Your task to perform on an android device: Clear the cart on costco. Add corsair k70 to the cart on costco Image 0: 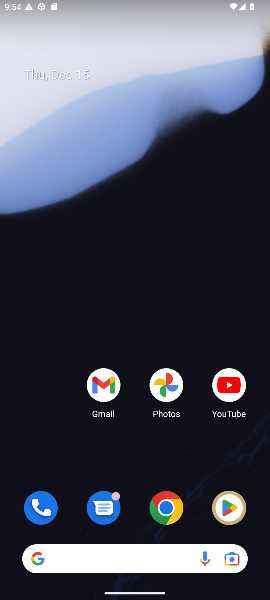
Step 0: drag from (94, 553) to (111, 252)
Your task to perform on an android device: Clear the cart on costco. Add corsair k70 to the cart on costco Image 1: 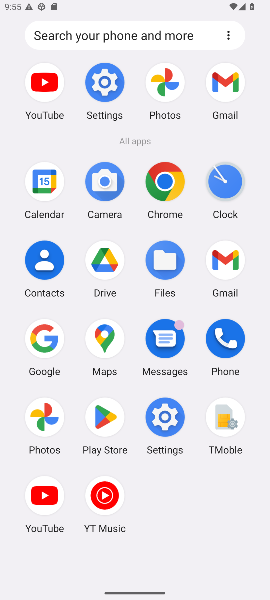
Step 1: click (40, 341)
Your task to perform on an android device: Clear the cart on costco. Add corsair k70 to the cart on costco Image 2: 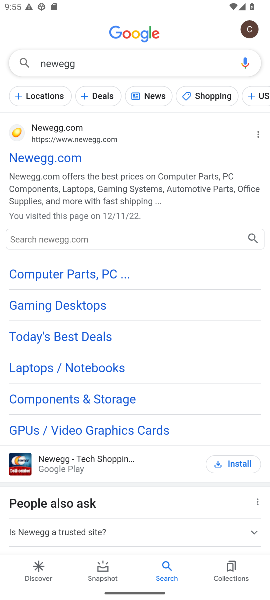
Step 2: click (60, 62)
Your task to perform on an android device: Clear the cart on costco. Add corsair k70 to the cart on costco Image 3: 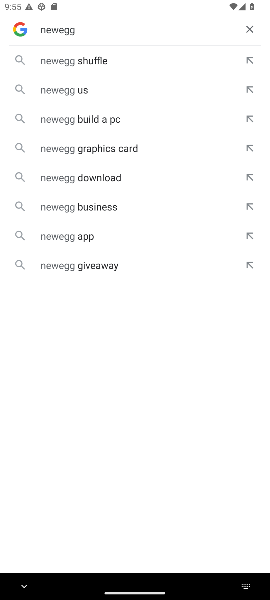
Step 3: click (250, 31)
Your task to perform on an android device: Clear the cart on costco. Add corsair k70 to the cart on costco Image 4: 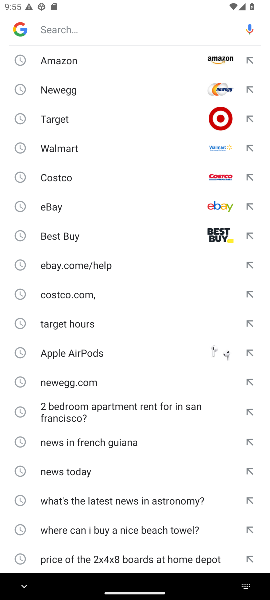
Step 4: click (56, 177)
Your task to perform on an android device: Clear the cart on costco. Add corsair k70 to the cart on costco Image 5: 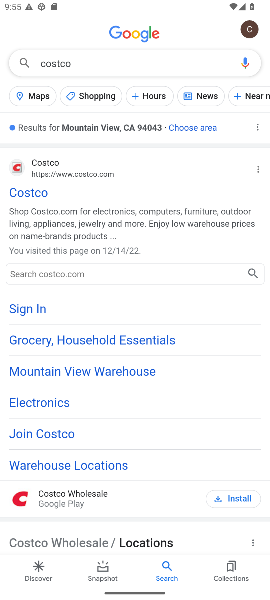
Step 5: click (36, 191)
Your task to perform on an android device: Clear the cart on costco. Add corsair k70 to the cart on costco Image 6: 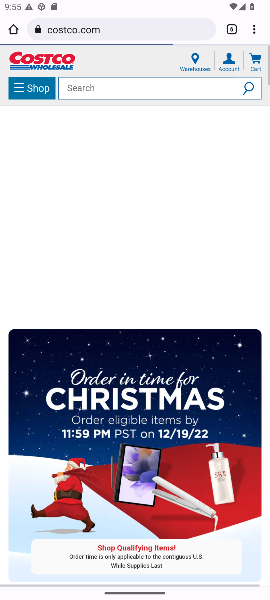
Step 6: click (101, 88)
Your task to perform on an android device: Clear the cart on costco. Add corsair k70 to the cart on costco Image 7: 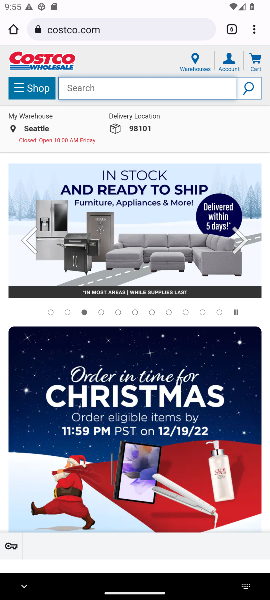
Step 7: click (92, 90)
Your task to perform on an android device: Clear the cart on costco. Add corsair k70 to the cart on costco Image 8: 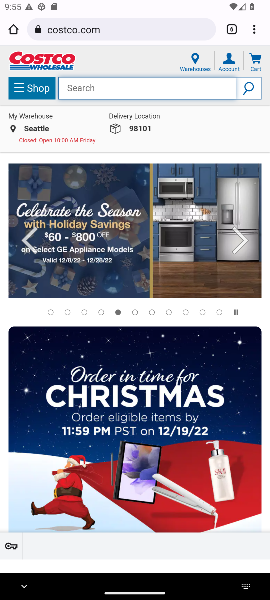
Step 8: type "corsair k70"
Your task to perform on an android device: Clear the cart on costco. Add corsair k70 to the cart on costco Image 9: 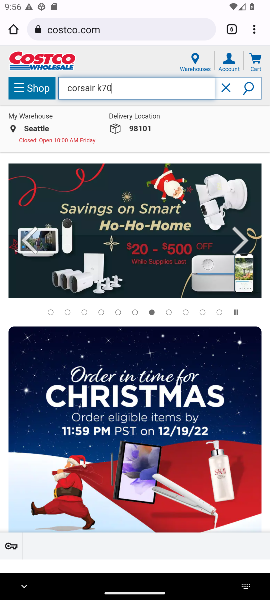
Step 9: click (252, 87)
Your task to perform on an android device: Clear the cart on costco. Add corsair k70 to the cart on costco Image 10: 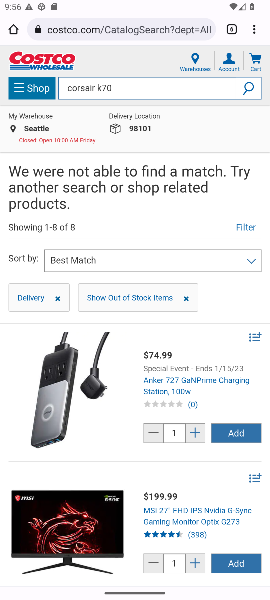
Step 10: click (237, 438)
Your task to perform on an android device: Clear the cart on costco. Add corsair k70 to the cart on costco Image 11: 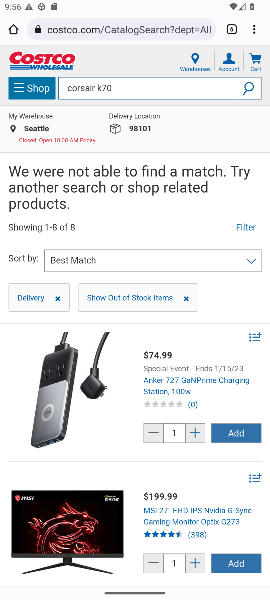
Step 11: click (236, 435)
Your task to perform on an android device: Clear the cart on costco. Add corsair k70 to the cart on costco Image 12: 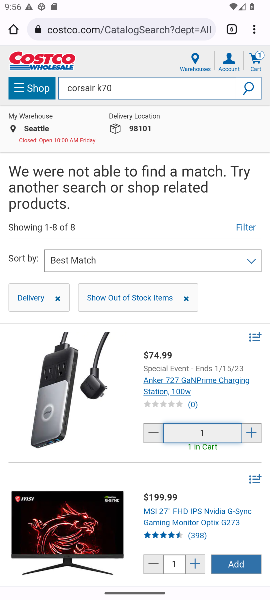
Step 12: task complete